Your task to perform on an android device: Open notification settings Image 0: 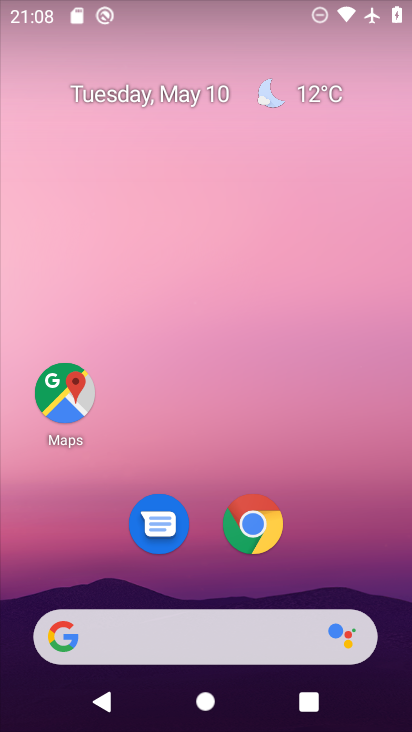
Step 0: drag from (342, 519) to (268, 53)
Your task to perform on an android device: Open notification settings Image 1: 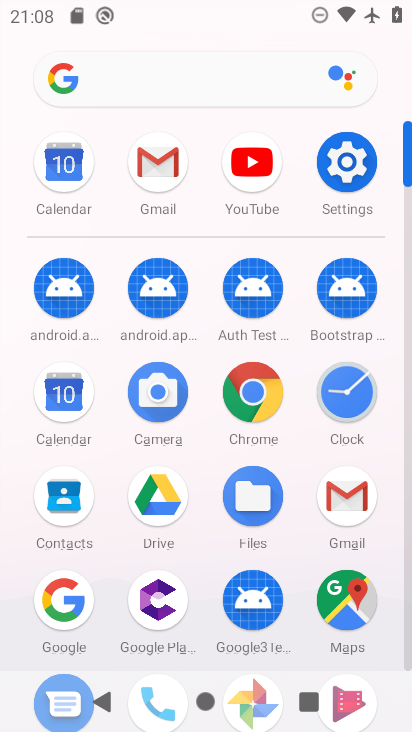
Step 1: click (347, 164)
Your task to perform on an android device: Open notification settings Image 2: 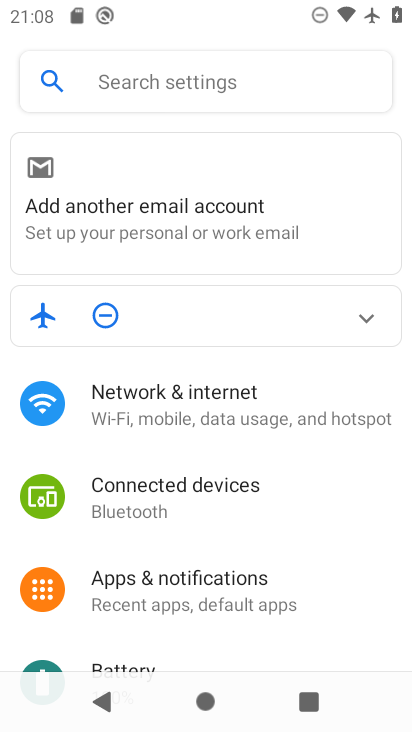
Step 2: click (239, 584)
Your task to perform on an android device: Open notification settings Image 3: 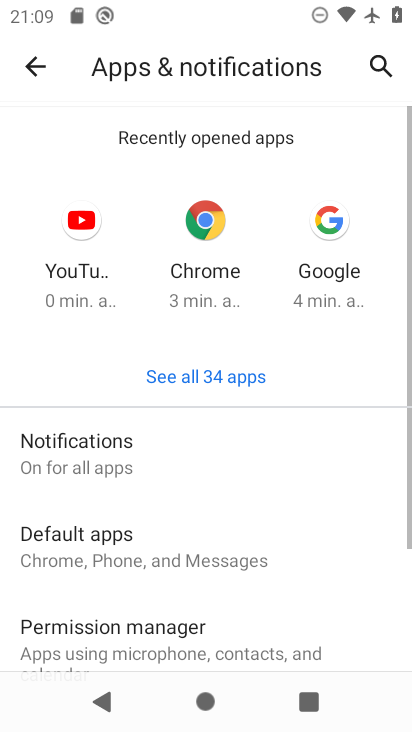
Step 3: click (126, 445)
Your task to perform on an android device: Open notification settings Image 4: 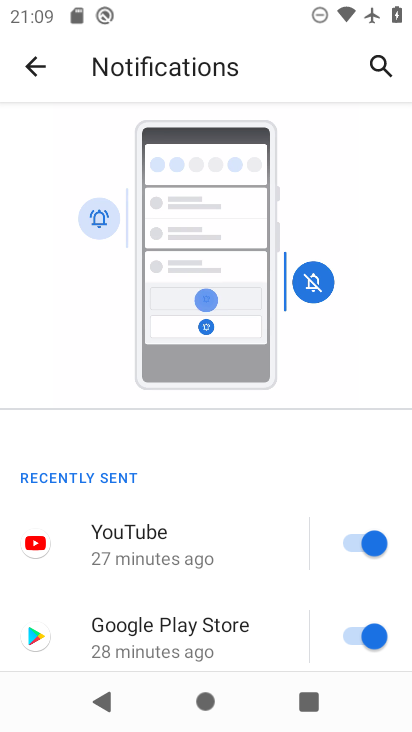
Step 4: task complete